Your task to perform on an android device: When is my next appointment? Image 0: 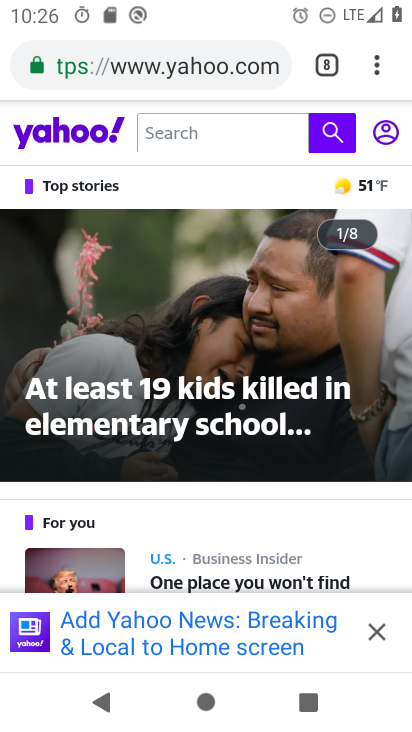
Step 0: press home button
Your task to perform on an android device: When is my next appointment? Image 1: 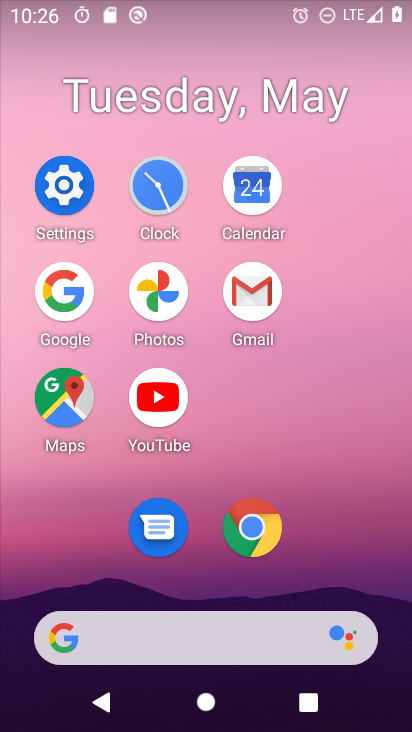
Step 1: click (257, 192)
Your task to perform on an android device: When is my next appointment? Image 2: 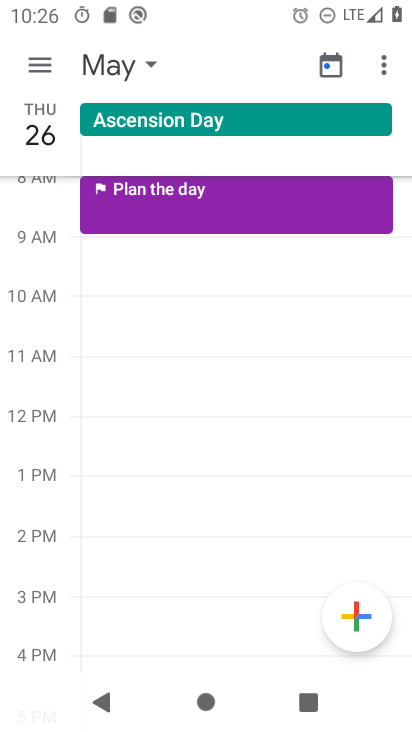
Step 2: task complete